Your task to perform on an android device: Go to location settings Image 0: 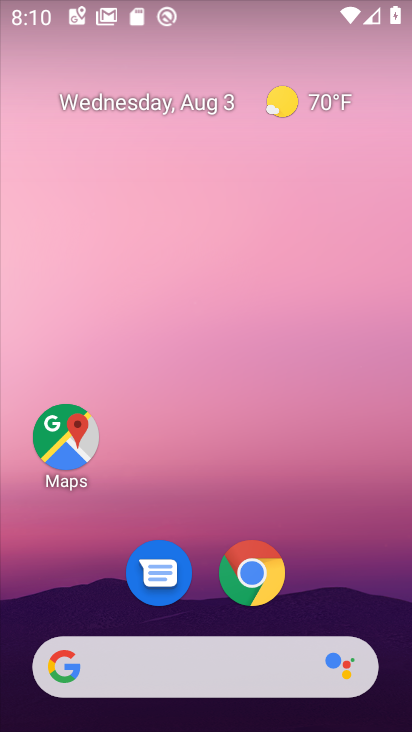
Step 0: press home button
Your task to perform on an android device: Go to location settings Image 1: 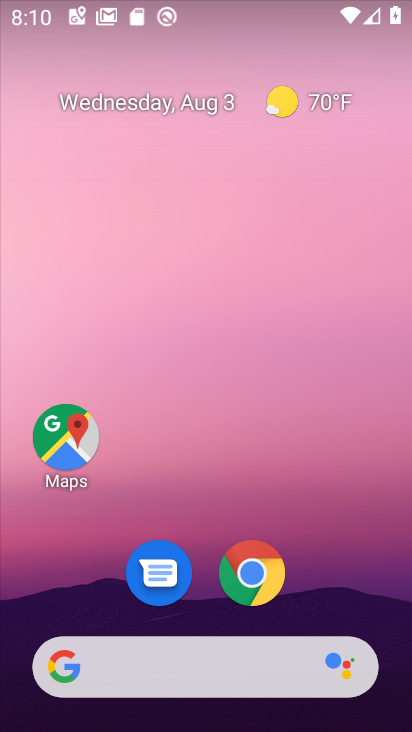
Step 1: drag from (338, 607) to (276, 0)
Your task to perform on an android device: Go to location settings Image 2: 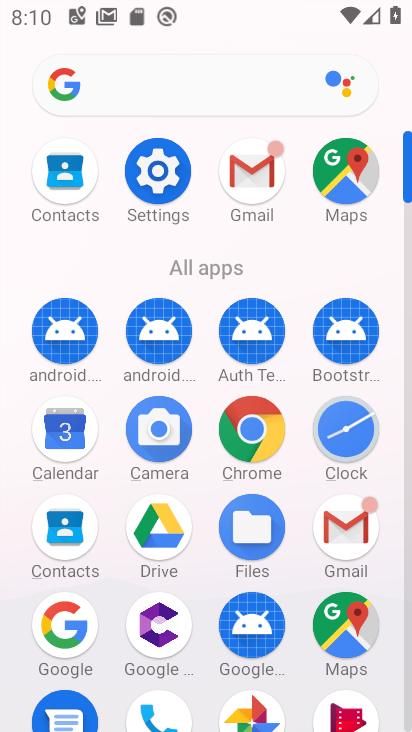
Step 2: click (155, 190)
Your task to perform on an android device: Go to location settings Image 3: 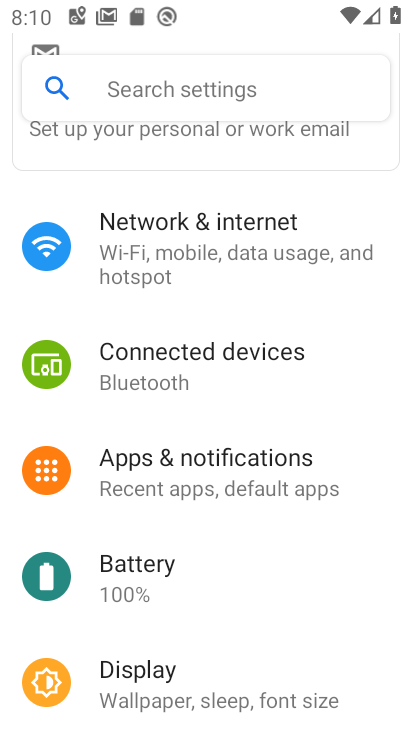
Step 3: drag from (404, 570) to (344, 104)
Your task to perform on an android device: Go to location settings Image 4: 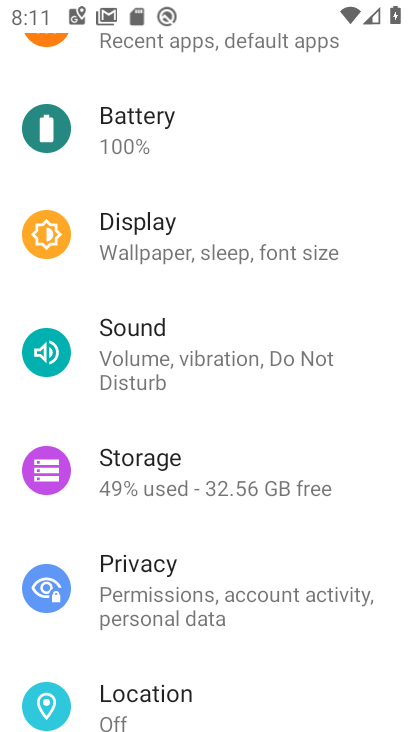
Step 4: drag from (344, 647) to (323, 447)
Your task to perform on an android device: Go to location settings Image 5: 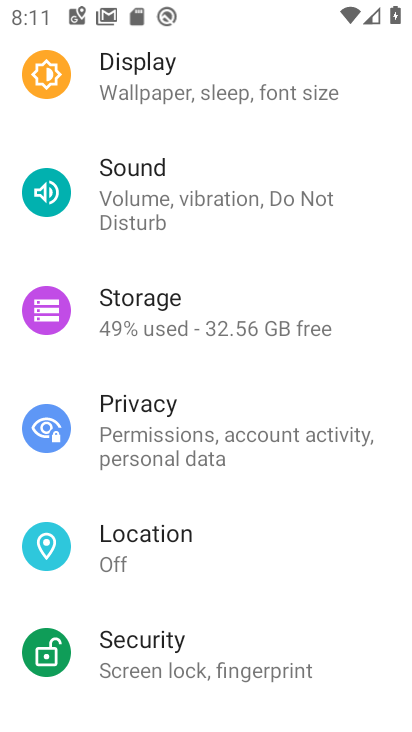
Step 5: click (121, 538)
Your task to perform on an android device: Go to location settings Image 6: 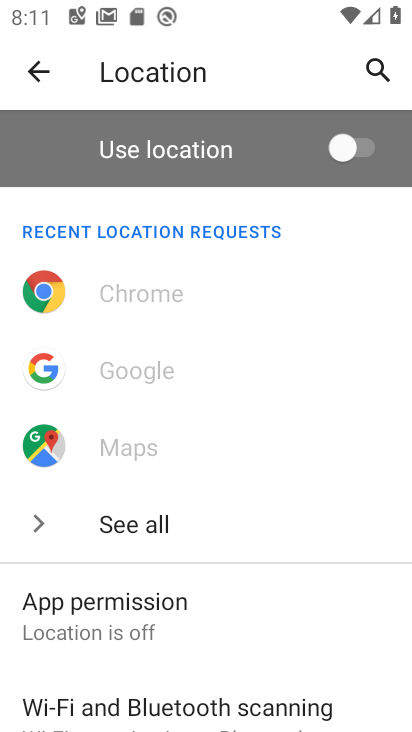
Step 6: task complete